Your task to perform on an android device: Open Maps and search for coffee Image 0: 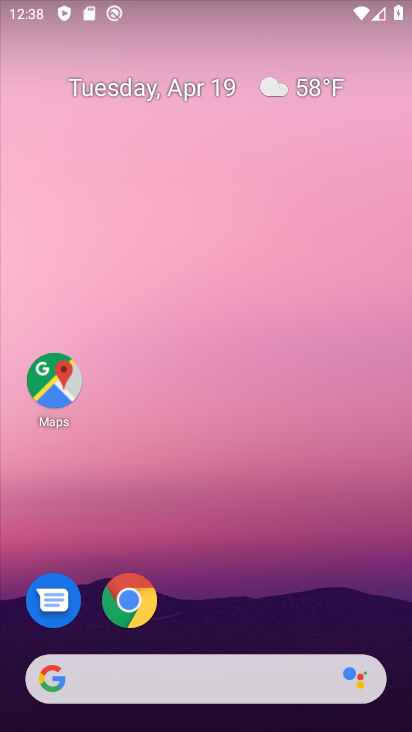
Step 0: click (47, 379)
Your task to perform on an android device: Open Maps and search for coffee Image 1: 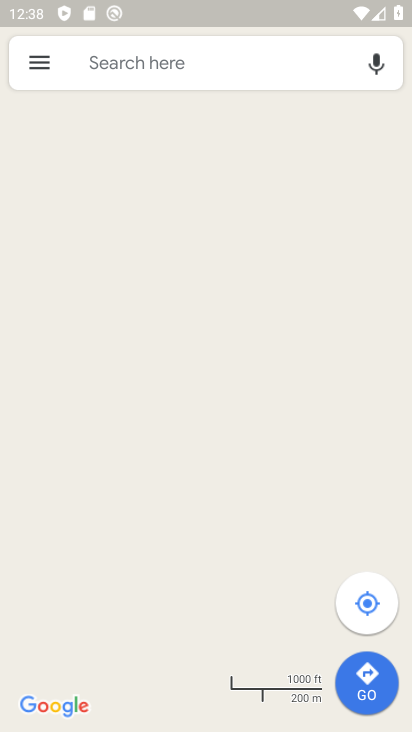
Step 1: click (151, 75)
Your task to perform on an android device: Open Maps and search for coffee Image 2: 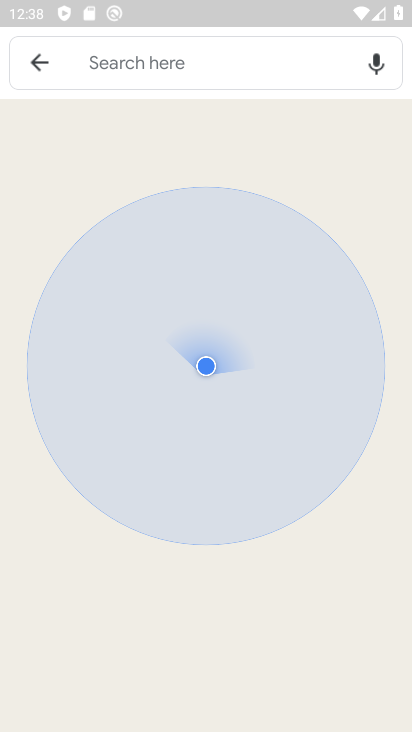
Step 2: click (143, 62)
Your task to perform on an android device: Open Maps and search for coffee Image 3: 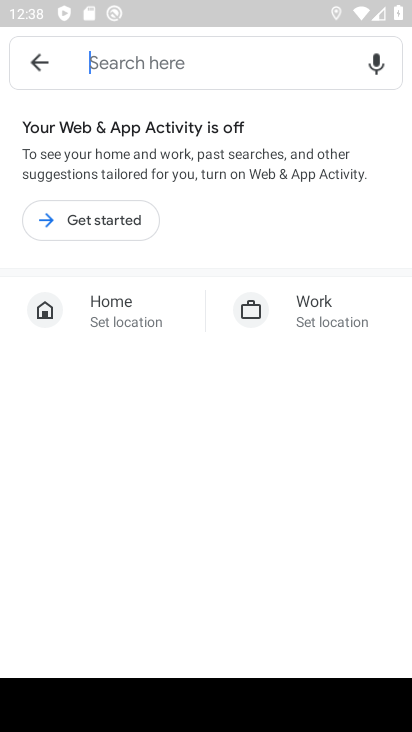
Step 3: type "coffe"
Your task to perform on an android device: Open Maps and search for coffee Image 4: 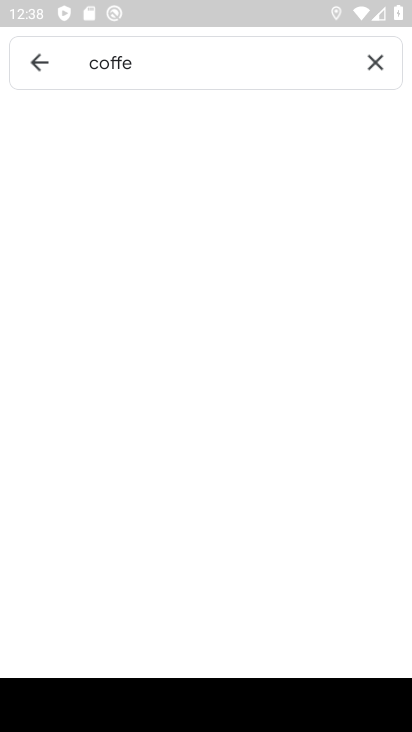
Step 4: type "e"
Your task to perform on an android device: Open Maps and search for coffee Image 5: 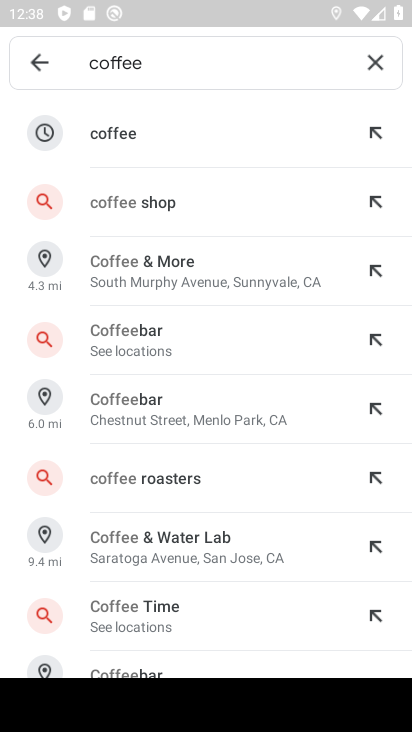
Step 5: click (155, 128)
Your task to perform on an android device: Open Maps and search for coffee Image 6: 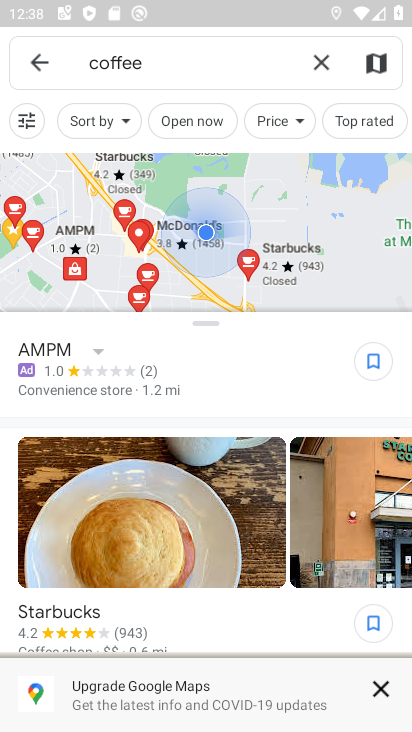
Step 6: task complete